Your task to perform on an android device: add a contact in the contacts app Image 0: 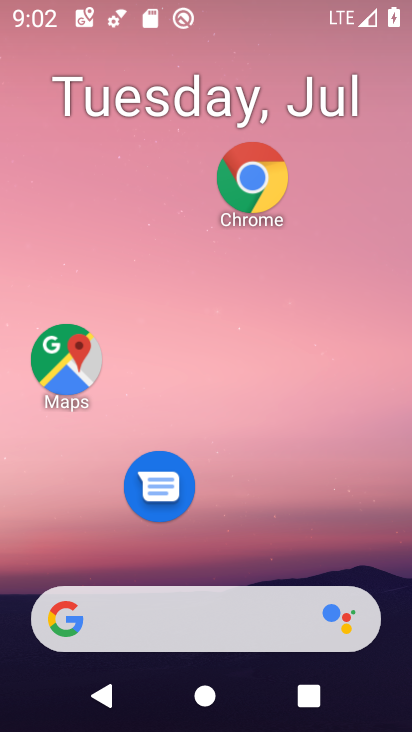
Step 0: drag from (203, 524) to (78, 553)
Your task to perform on an android device: add a contact in the contacts app Image 1: 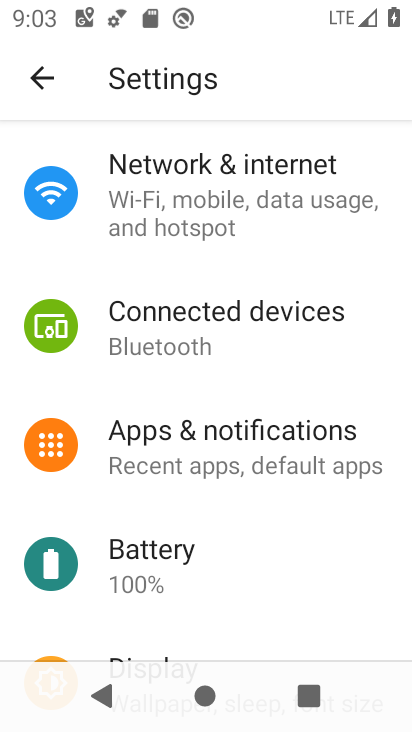
Step 1: task complete